Your task to perform on an android device: Open my contact list Image 0: 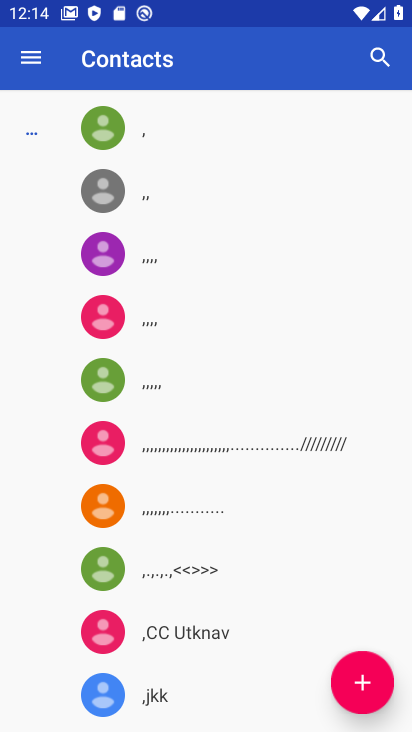
Step 0: task complete